Your task to perform on an android device: Is it going to rain today? Image 0: 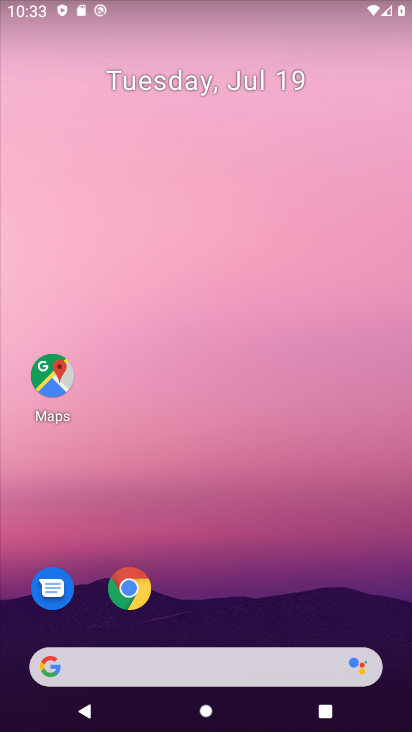
Step 0: drag from (364, 616) to (228, 17)
Your task to perform on an android device: Is it going to rain today? Image 1: 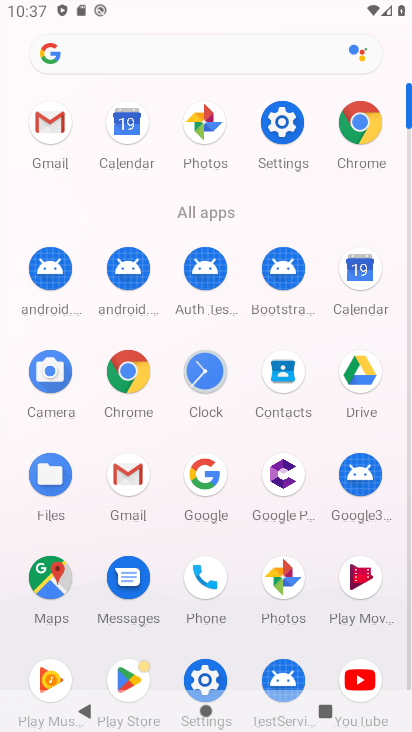
Step 1: click (189, 489)
Your task to perform on an android device: Is it going to rain today? Image 2: 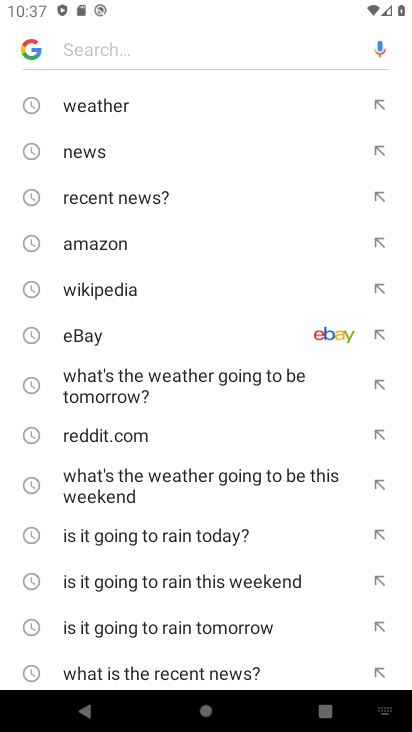
Step 2: click (176, 541)
Your task to perform on an android device: Is it going to rain today? Image 3: 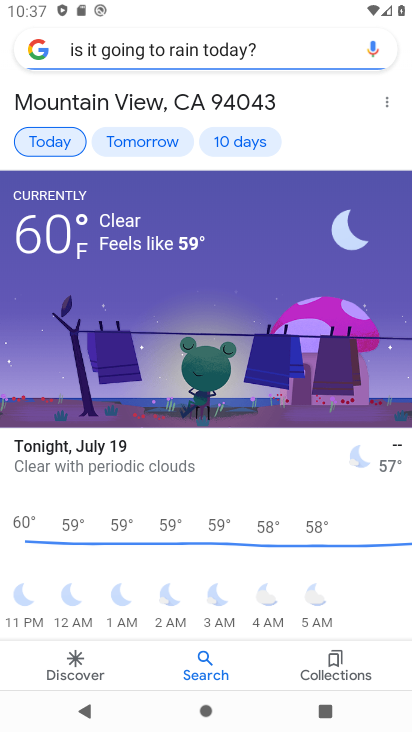
Step 3: task complete